Your task to perform on an android device: Open privacy settings Image 0: 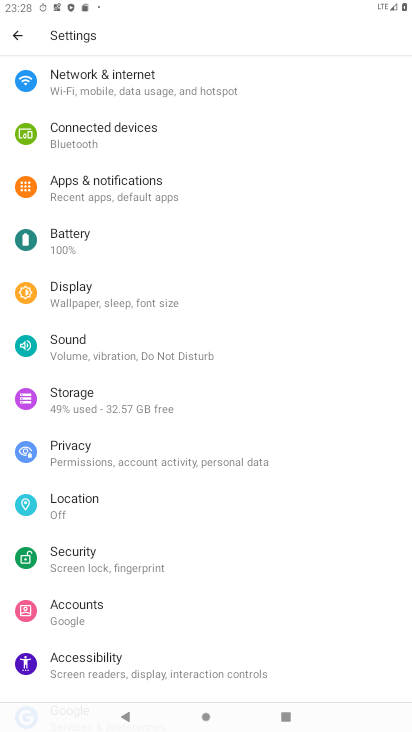
Step 0: click (83, 456)
Your task to perform on an android device: Open privacy settings Image 1: 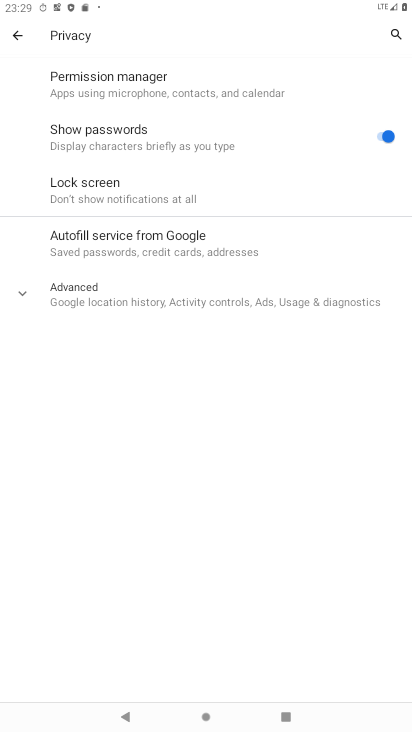
Step 1: task complete